Your task to perform on an android device: delete location history Image 0: 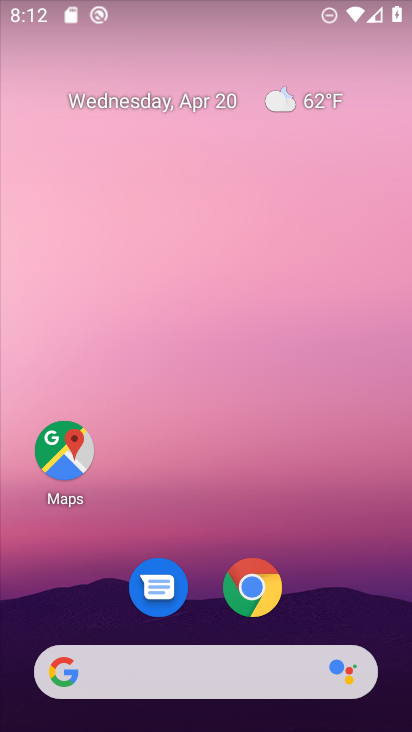
Step 0: drag from (332, 514) to (294, 20)
Your task to perform on an android device: delete location history Image 1: 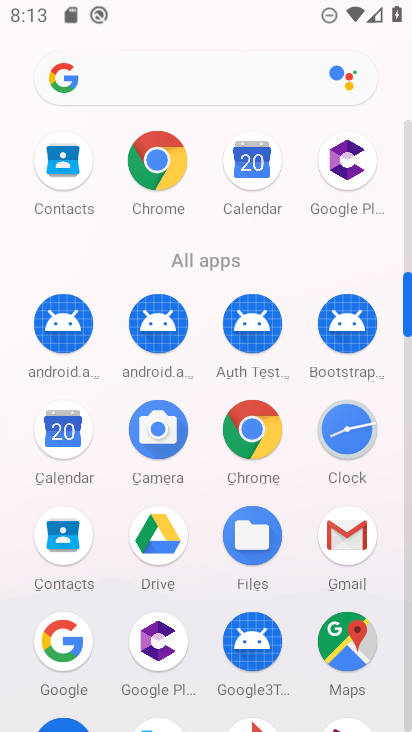
Step 1: click (350, 651)
Your task to perform on an android device: delete location history Image 2: 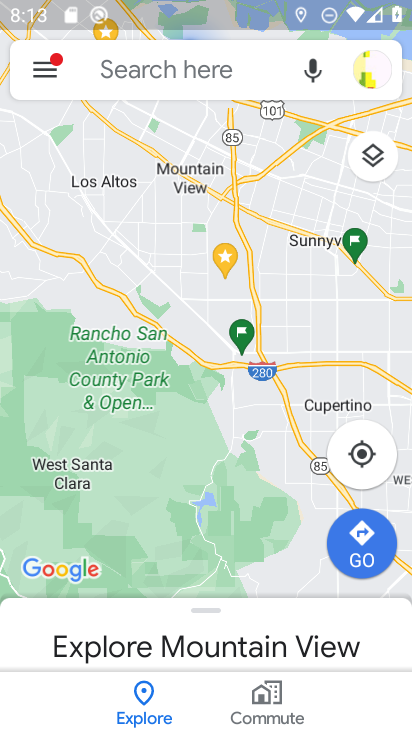
Step 2: click (34, 75)
Your task to perform on an android device: delete location history Image 3: 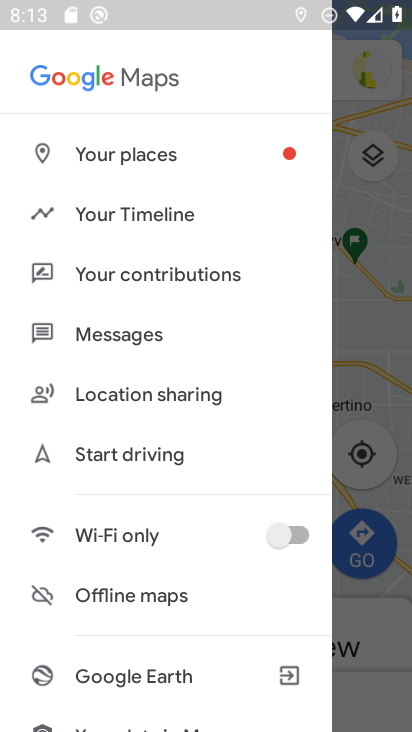
Step 3: click (231, 211)
Your task to perform on an android device: delete location history Image 4: 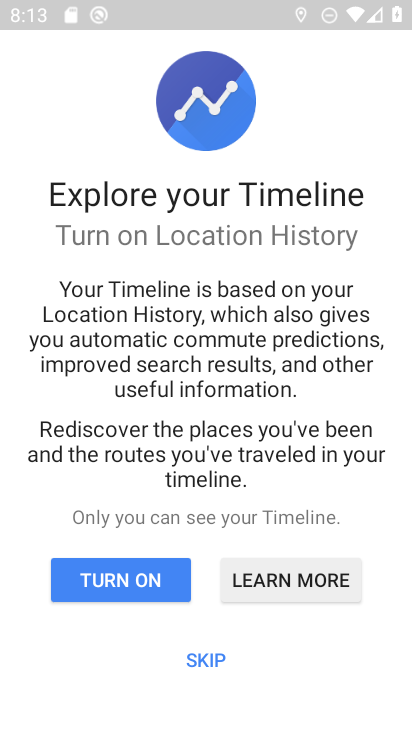
Step 4: click (201, 655)
Your task to perform on an android device: delete location history Image 5: 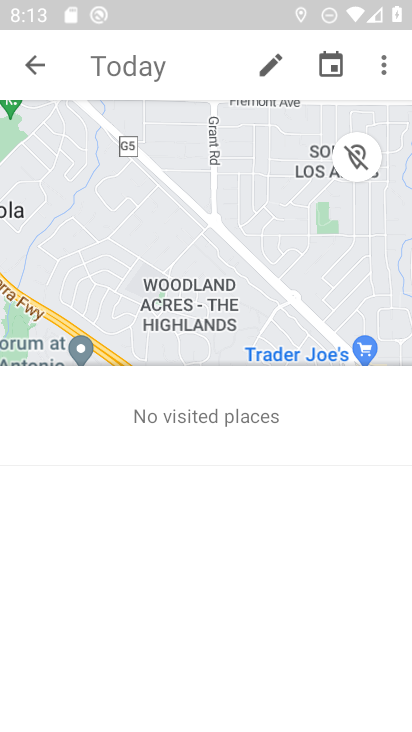
Step 5: click (388, 62)
Your task to perform on an android device: delete location history Image 6: 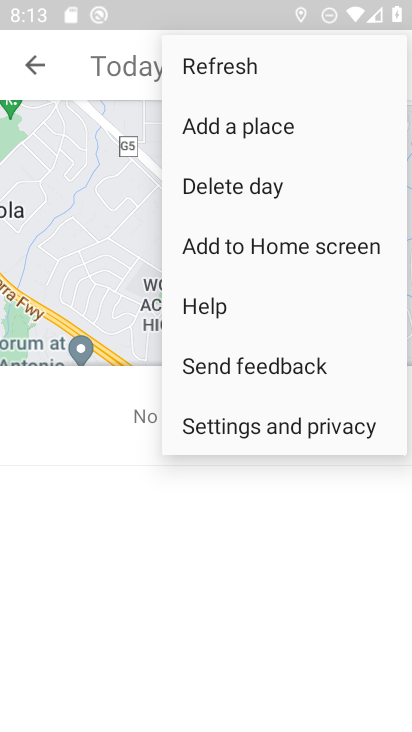
Step 6: click (272, 177)
Your task to perform on an android device: delete location history Image 7: 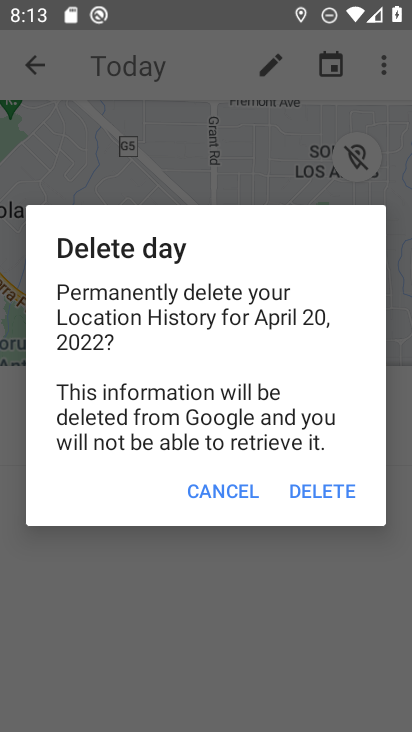
Step 7: click (350, 493)
Your task to perform on an android device: delete location history Image 8: 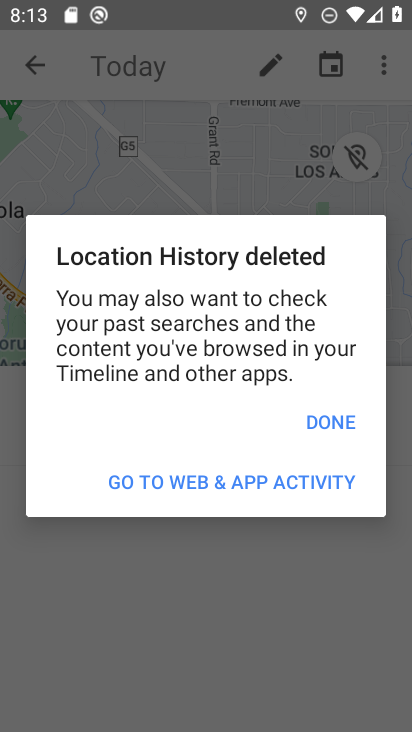
Step 8: click (334, 423)
Your task to perform on an android device: delete location history Image 9: 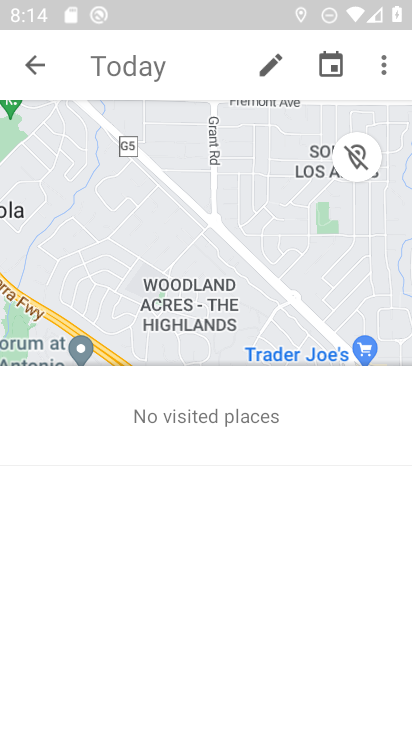
Step 9: task complete